Your task to perform on an android device: see creations saved in the google photos Image 0: 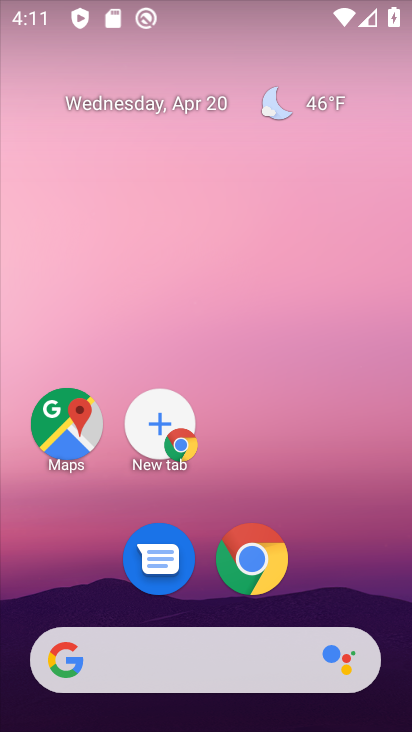
Step 0: drag from (336, 574) to (253, 79)
Your task to perform on an android device: see creations saved in the google photos Image 1: 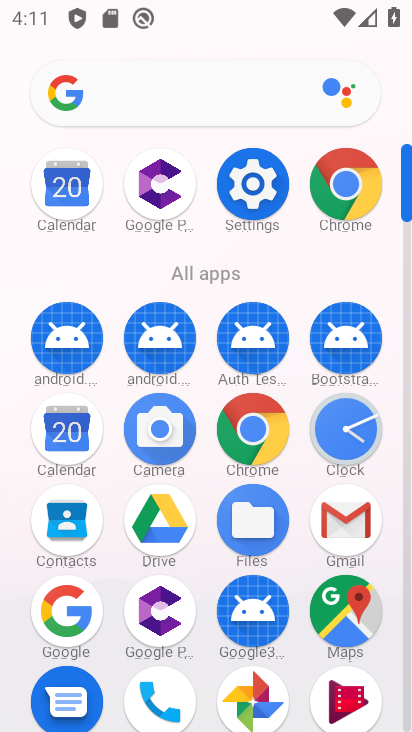
Step 1: click (255, 711)
Your task to perform on an android device: see creations saved in the google photos Image 2: 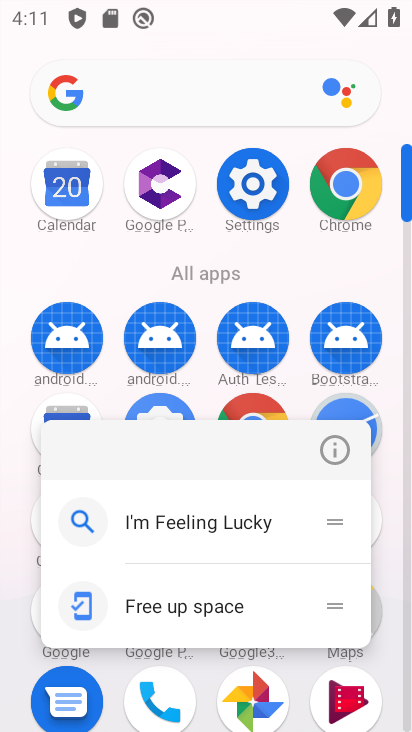
Step 2: click (255, 702)
Your task to perform on an android device: see creations saved in the google photos Image 3: 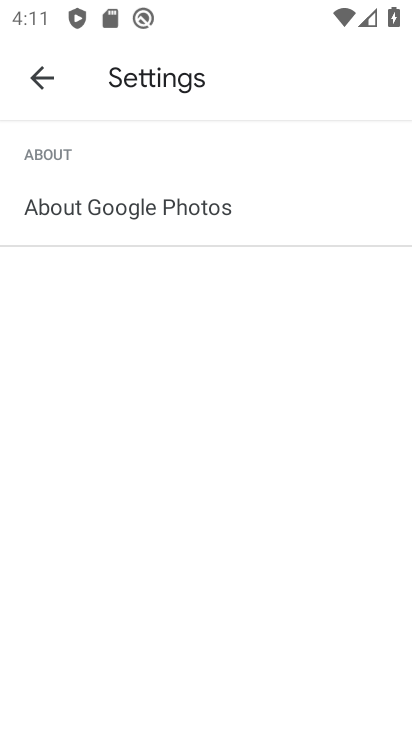
Step 3: click (38, 81)
Your task to perform on an android device: see creations saved in the google photos Image 4: 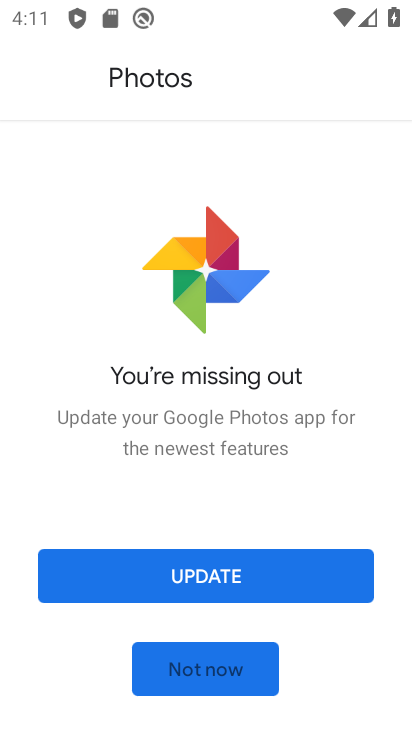
Step 4: click (253, 564)
Your task to perform on an android device: see creations saved in the google photos Image 5: 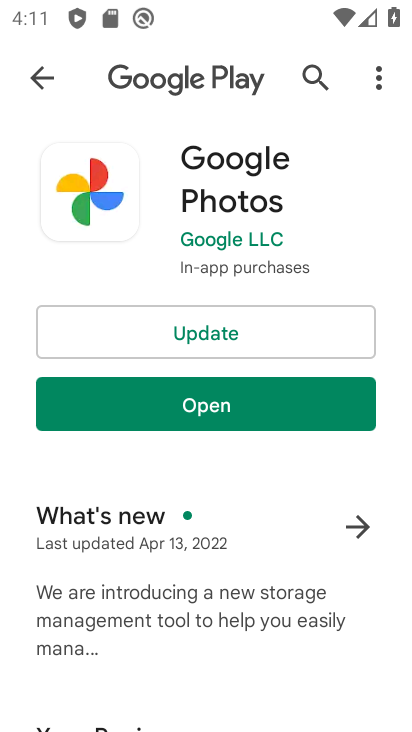
Step 5: click (209, 322)
Your task to perform on an android device: see creations saved in the google photos Image 6: 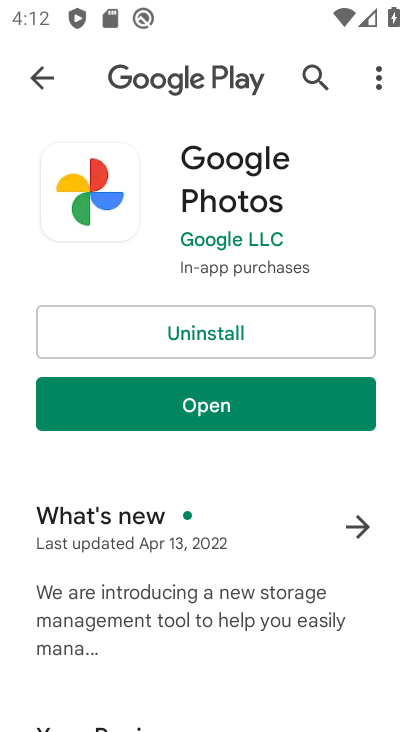
Step 6: click (165, 421)
Your task to perform on an android device: see creations saved in the google photos Image 7: 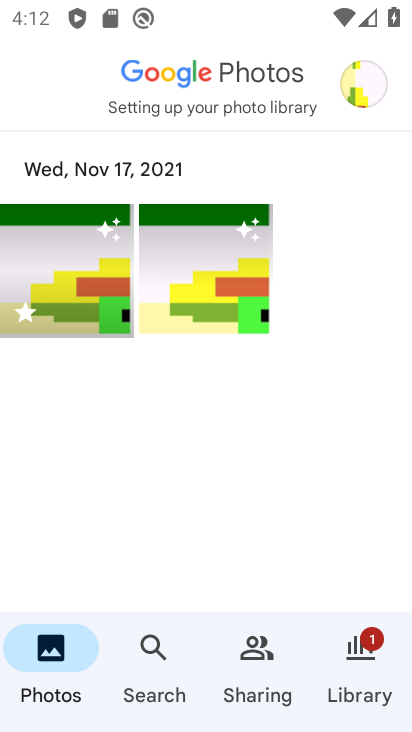
Step 7: click (368, 82)
Your task to perform on an android device: see creations saved in the google photos Image 8: 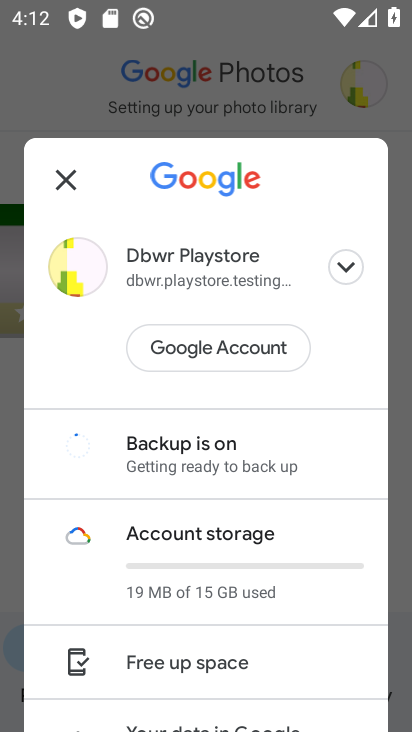
Step 8: task complete